Your task to perform on an android device: Search for flights from Seoul to Barcelona Image 0: 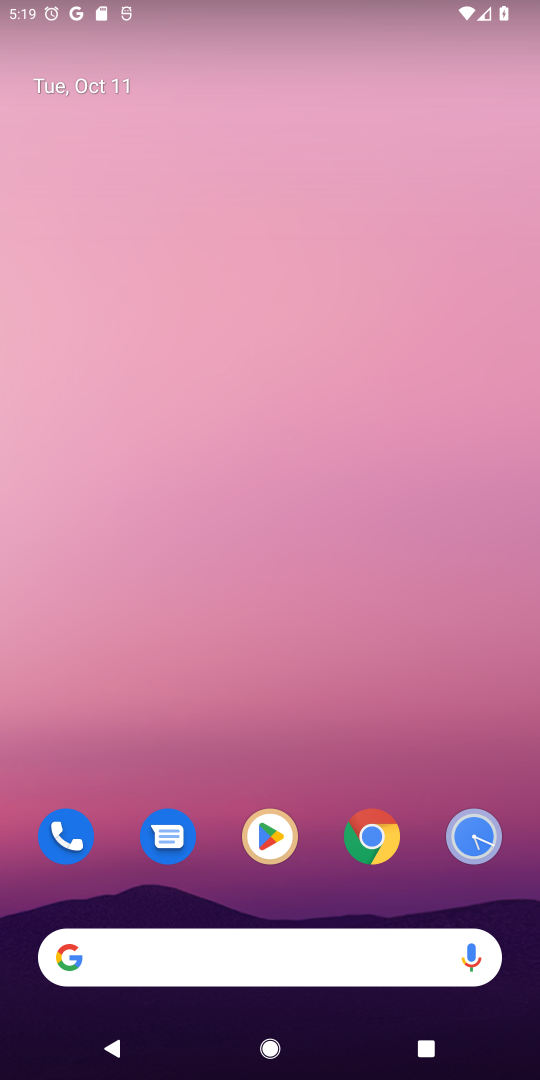
Step 0: click (239, 962)
Your task to perform on an android device: Search for flights from Seoul to Barcelona Image 1: 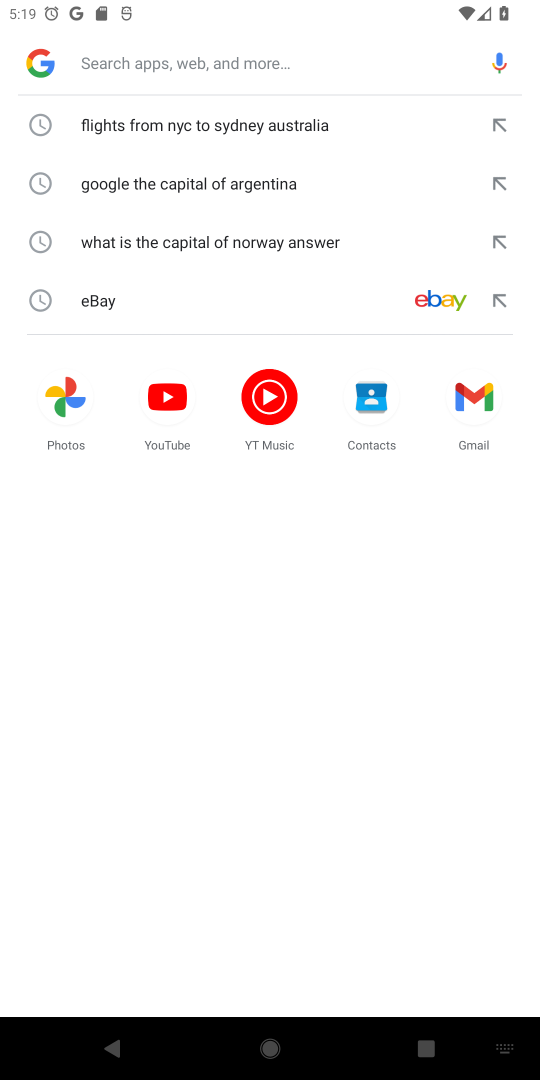
Step 1: type "flights from Seoul to Barcelona"
Your task to perform on an android device: Search for flights from Seoul to Barcelona Image 2: 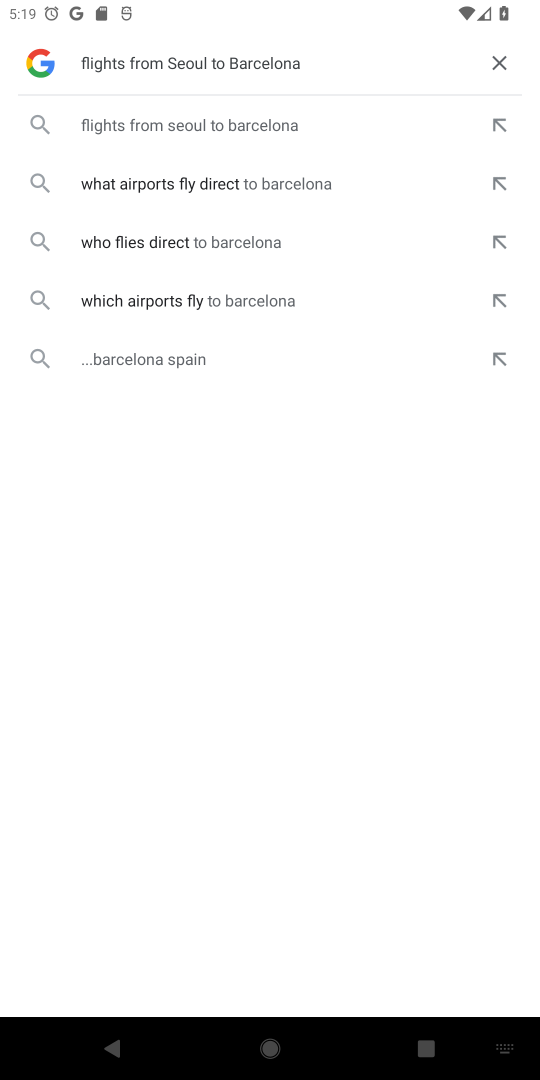
Step 2: click (235, 135)
Your task to perform on an android device: Search for flights from Seoul to Barcelona Image 3: 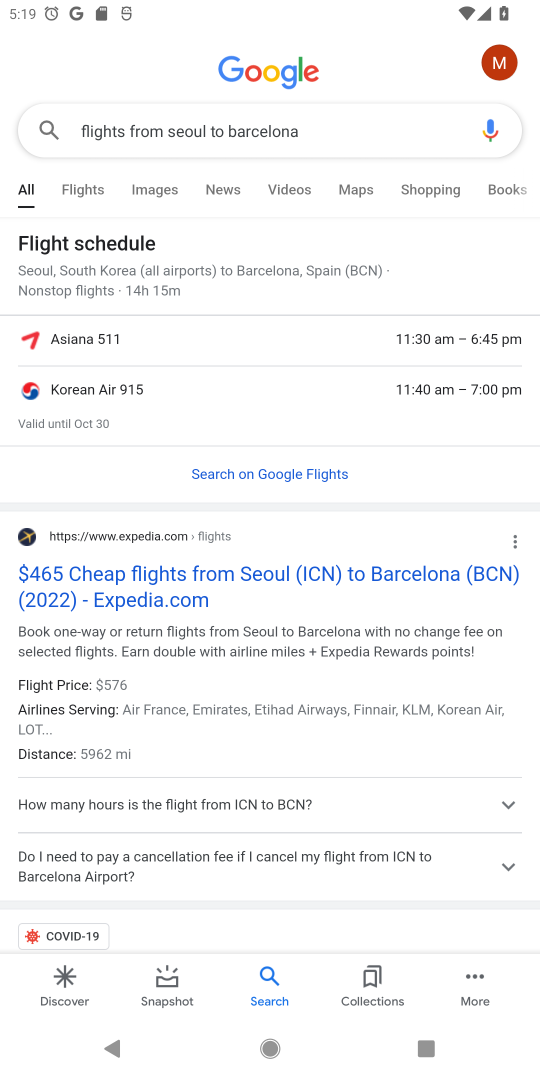
Step 3: task complete